Your task to perform on an android device: Open Reddit.com Image 0: 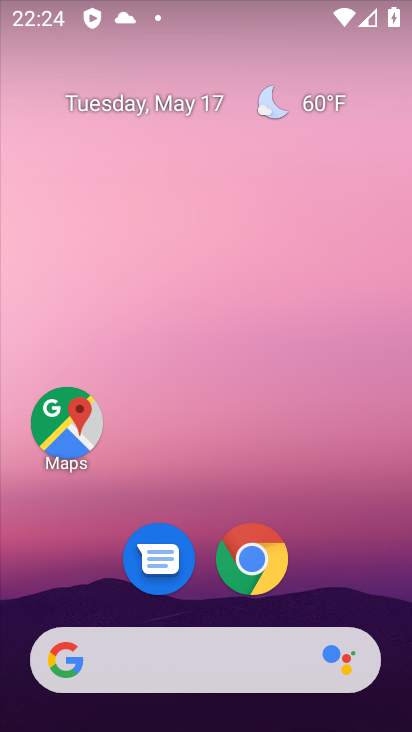
Step 0: click (261, 549)
Your task to perform on an android device: Open Reddit.com Image 1: 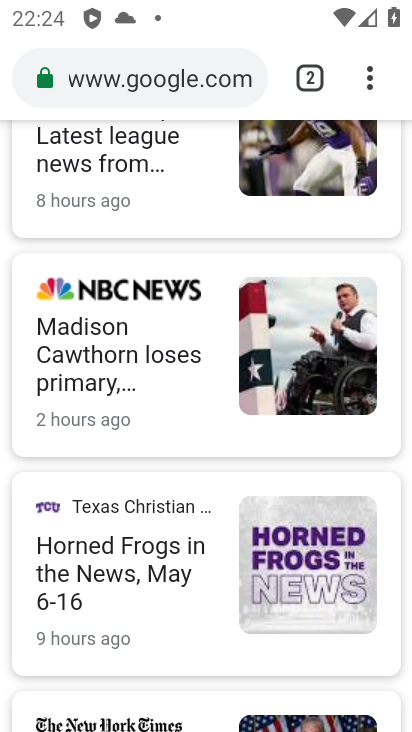
Step 1: click (207, 66)
Your task to perform on an android device: Open Reddit.com Image 2: 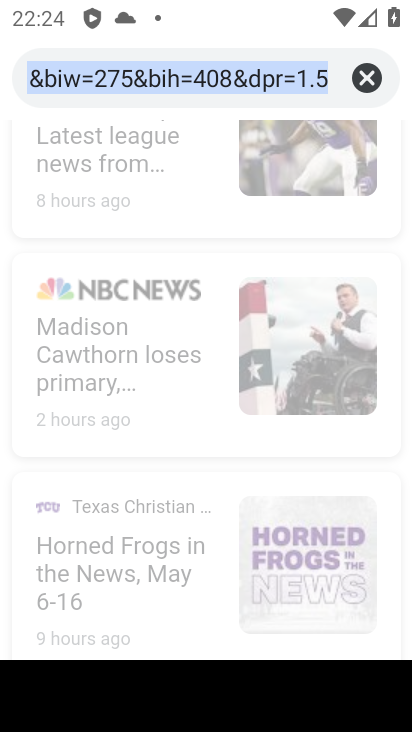
Step 2: type "reddit.com"
Your task to perform on an android device: Open Reddit.com Image 3: 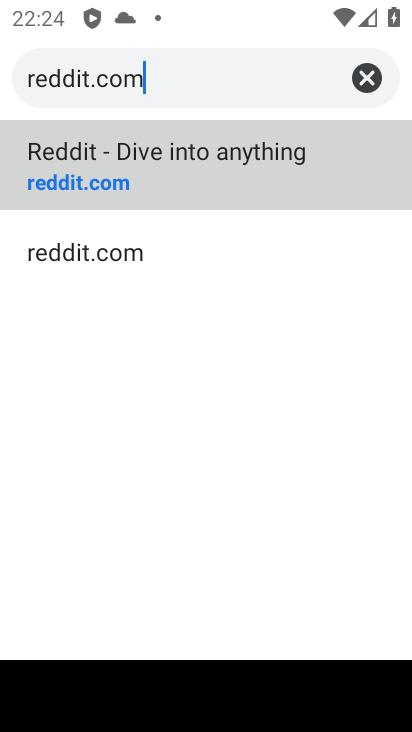
Step 3: click (78, 188)
Your task to perform on an android device: Open Reddit.com Image 4: 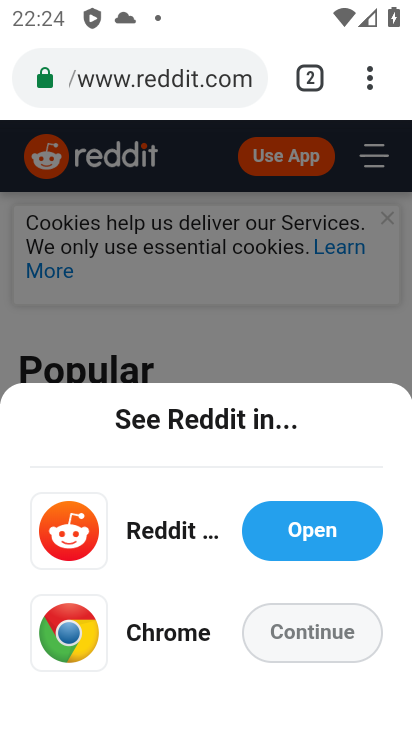
Step 4: task complete